Your task to perform on an android device: Open wifi settings Image 0: 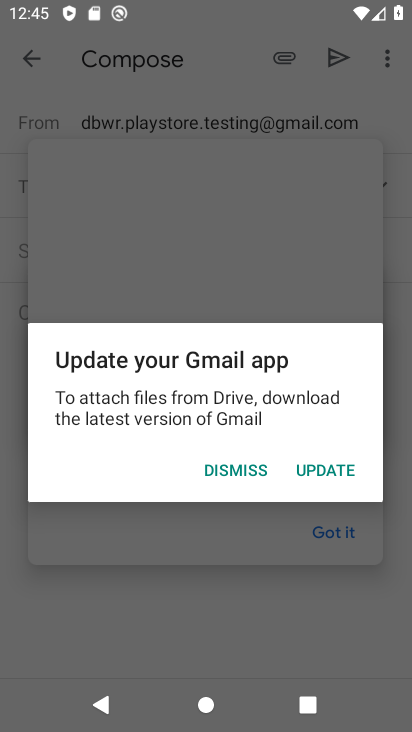
Step 0: press home button
Your task to perform on an android device: Open wifi settings Image 1: 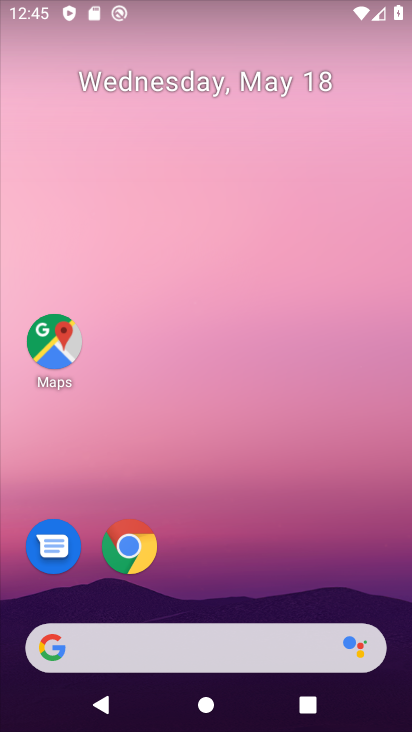
Step 1: drag from (211, 557) to (287, 113)
Your task to perform on an android device: Open wifi settings Image 2: 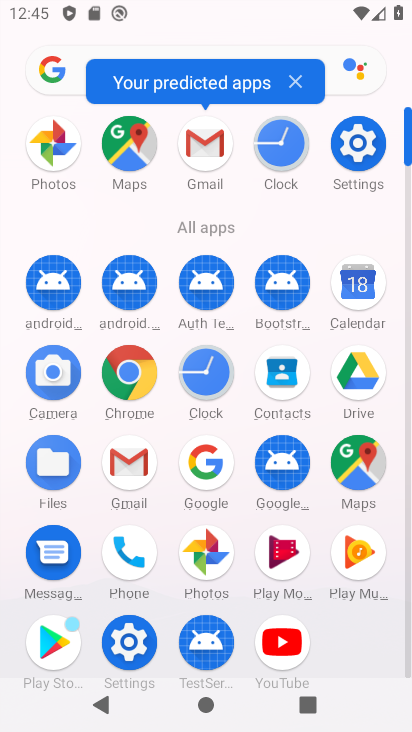
Step 2: click (111, 648)
Your task to perform on an android device: Open wifi settings Image 3: 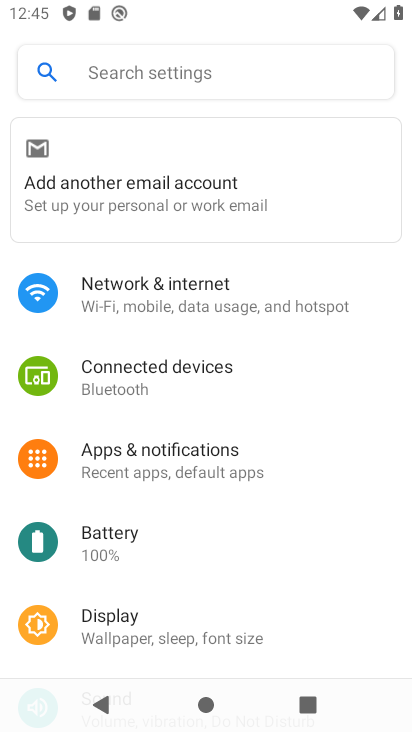
Step 3: click (148, 305)
Your task to perform on an android device: Open wifi settings Image 4: 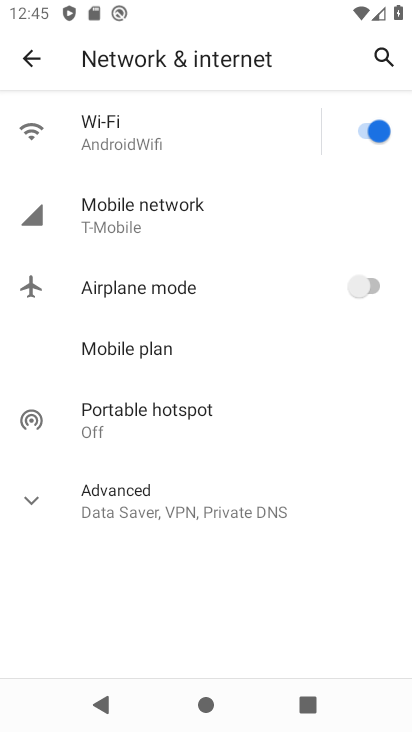
Step 4: task complete